Your task to perform on an android device: Turn on the flashlight Image 0: 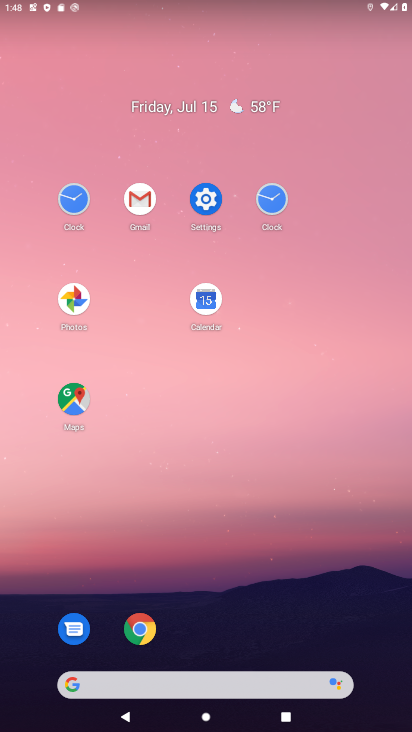
Step 0: drag from (277, 14) to (275, 382)
Your task to perform on an android device: Turn on the flashlight Image 1: 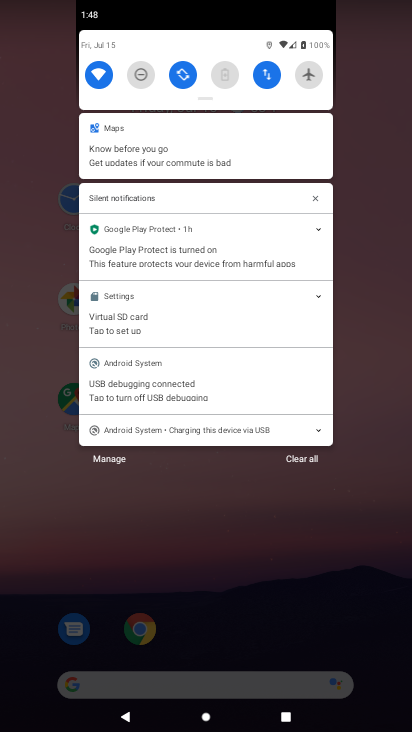
Step 1: task complete